Your task to perform on an android device: turn on wifi Image 0: 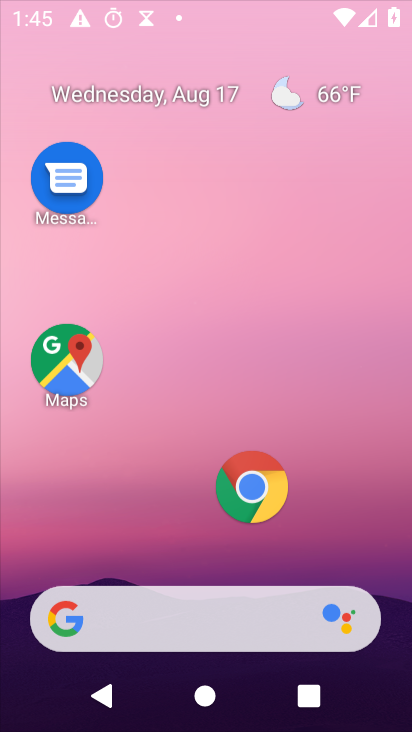
Step 0: press home button
Your task to perform on an android device: turn on wifi Image 1: 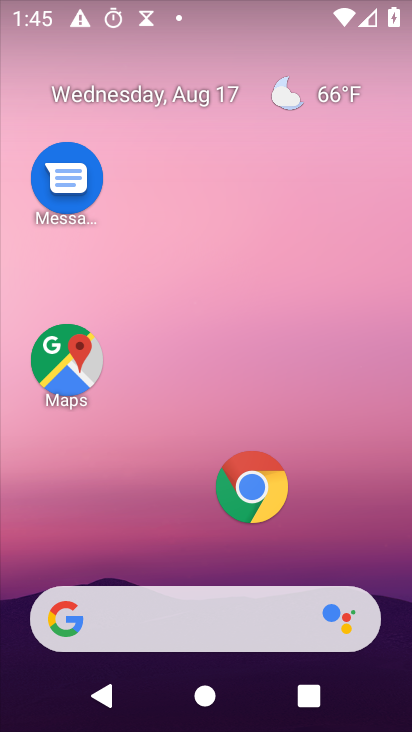
Step 1: drag from (221, 108) to (192, 534)
Your task to perform on an android device: turn on wifi Image 2: 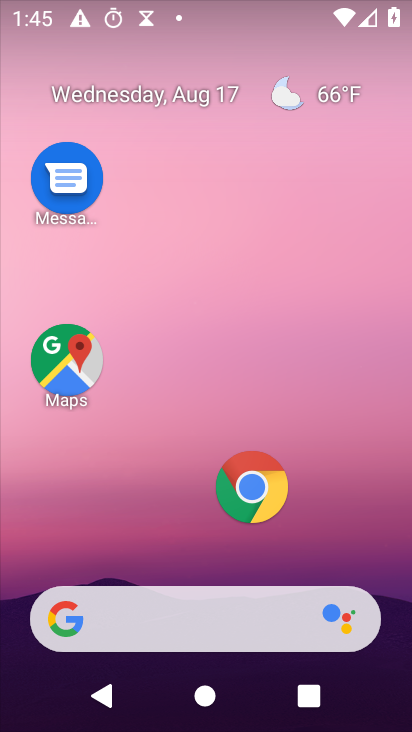
Step 2: drag from (245, 179) to (245, 626)
Your task to perform on an android device: turn on wifi Image 3: 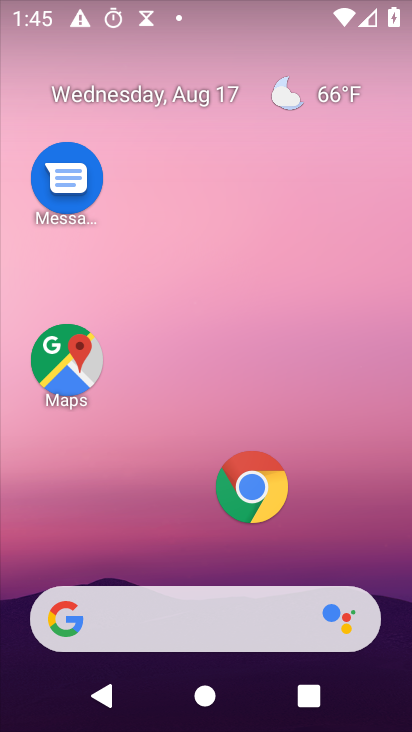
Step 3: drag from (210, 163) to (171, 666)
Your task to perform on an android device: turn on wifi Image 4: 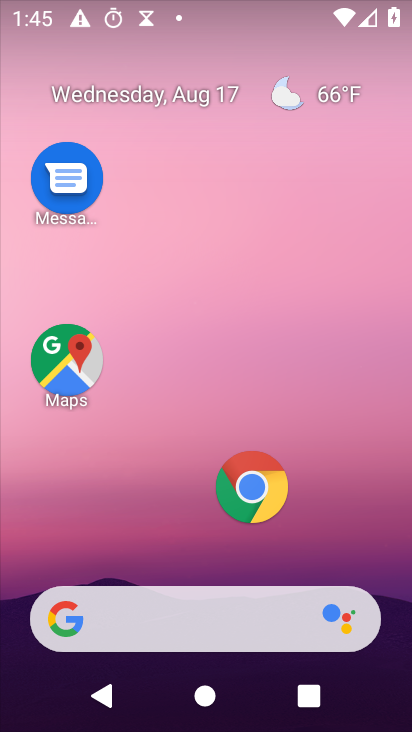
Step 4: drag from (206, 460) to (257, 70)
Your task to perform on an android device: turn on wifi Image 5: 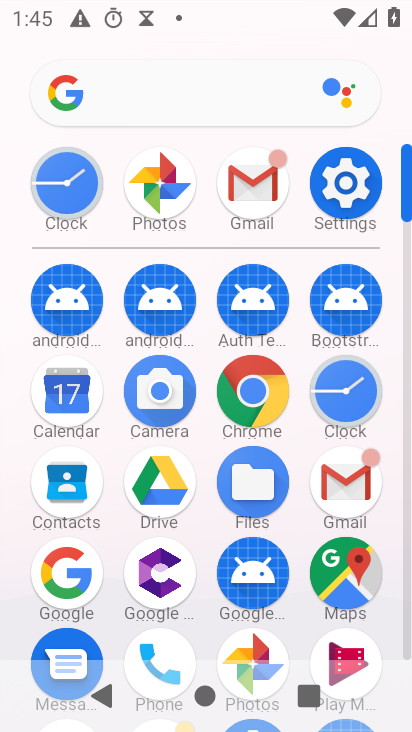
Step 5: click (353, 186)
Your task to perform on an android device: turn on wifi Image 6: 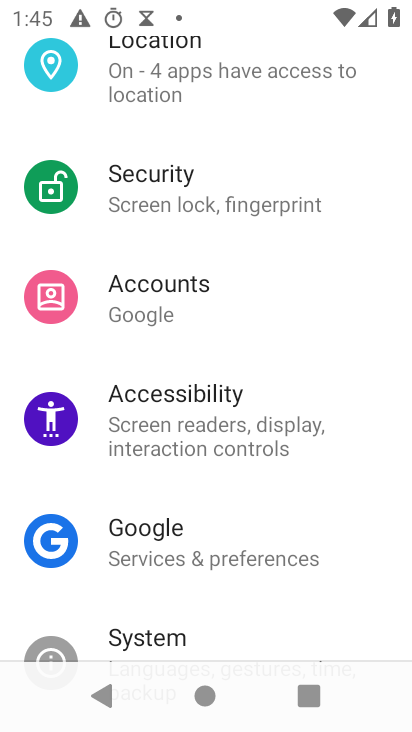
Step 6: drag from (335, 222) to (294, 694)
Your task to perform on an android device: turn on wifi Image 7: 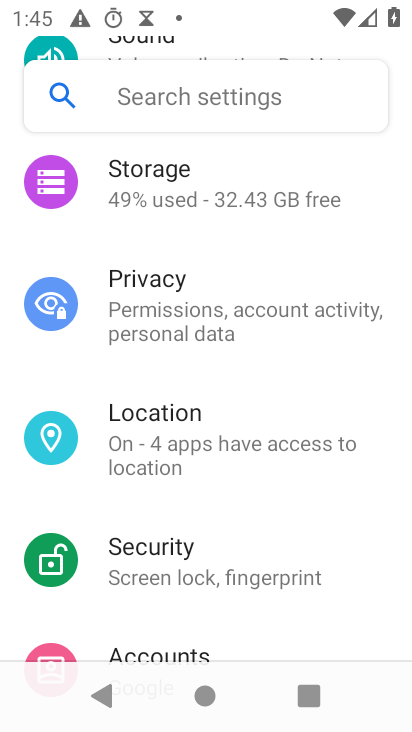
Step 7: drag from (293, 244) to (314, 730)
Your task to perform on an android device: turn on wifi Image 8: 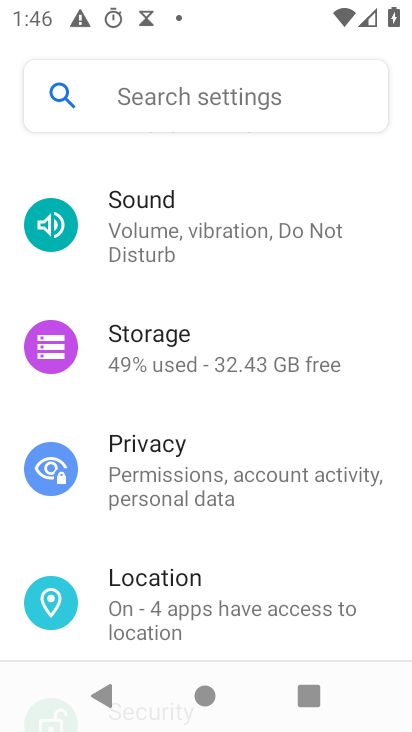
Step 8: drag from (297, 482) to (309, 727)
Your task to perform on an android device: turn on wifi Image 9: 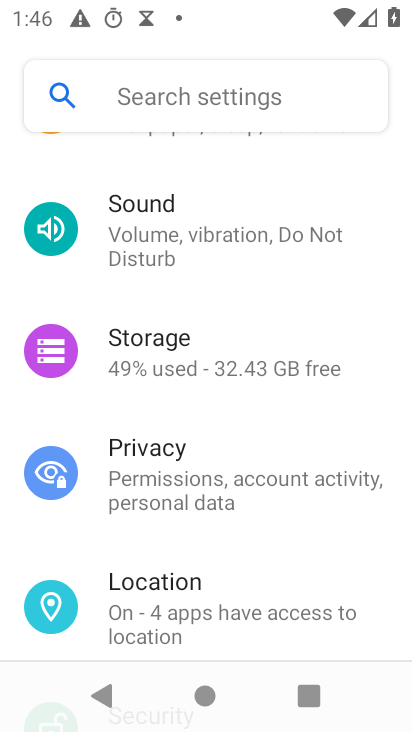
Step 9: drag from (273, 286) to (313, 729)
Your task to perform on an android device: turn on wifi Image 10: 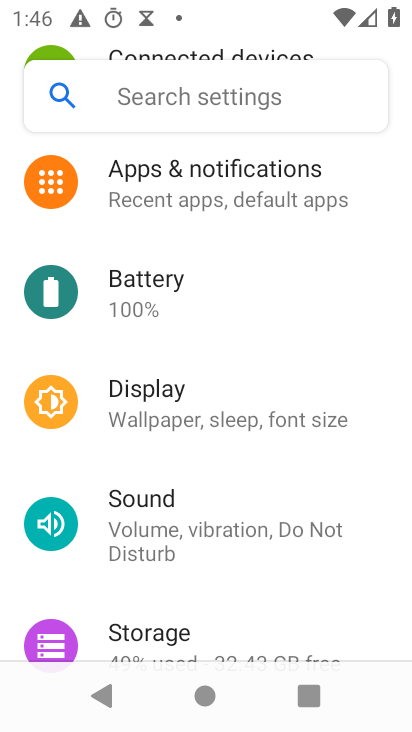
Step 10: drag from (296, 297) to (316, 717)
Your task to perform on an android device: turn on wifi Image 11: 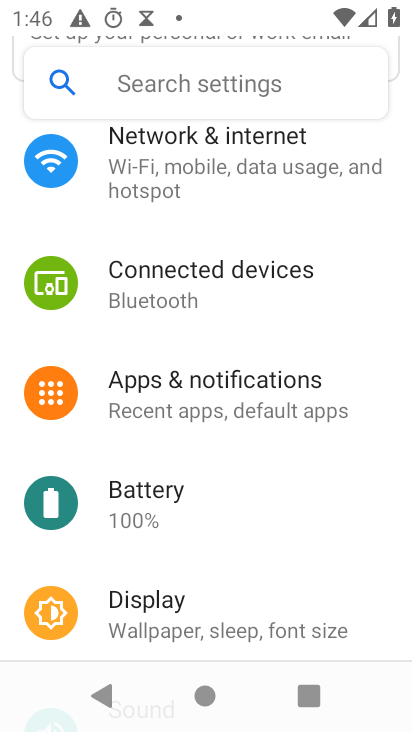
Step 11: click (191, 180)
Your task to perform on an android device: turn on wifi Image 12: 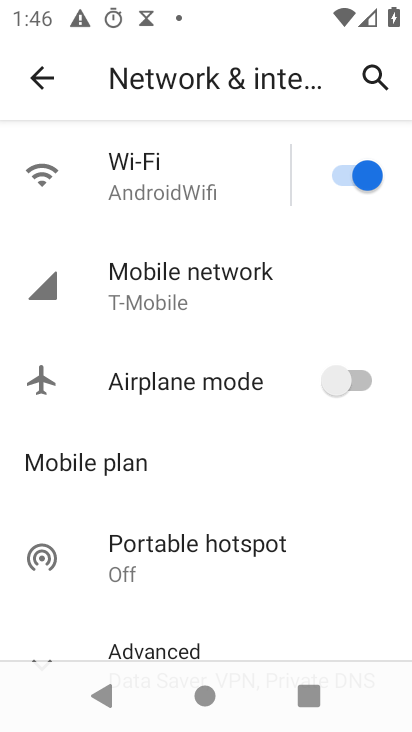
Step 12: task complete